Your task to perform on an android device: Toggle the flashlight Image 0: 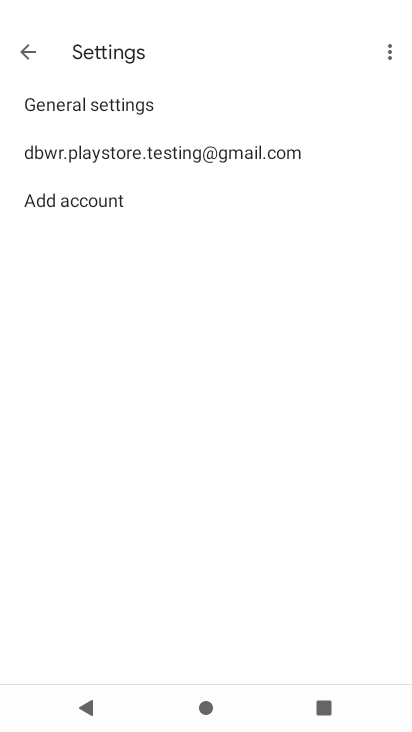
Step 0: press home button
Your task to perform on an android device: Toggle the flashlight Image 1: 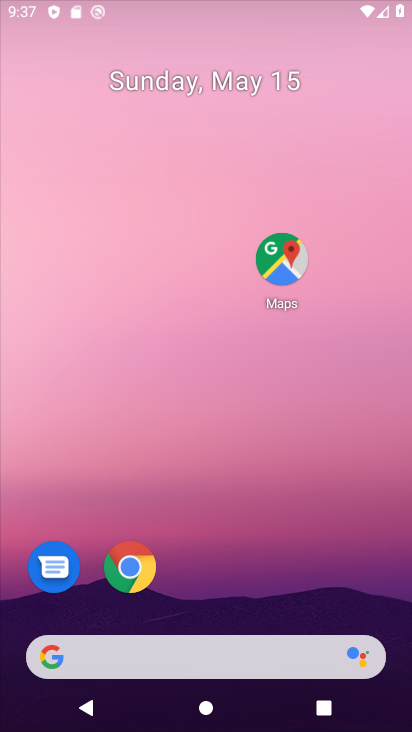
Step 1: drag from (242, 588) to (213, 113)
Your task to perform on an android device: Toggle the flashlight Image 2: 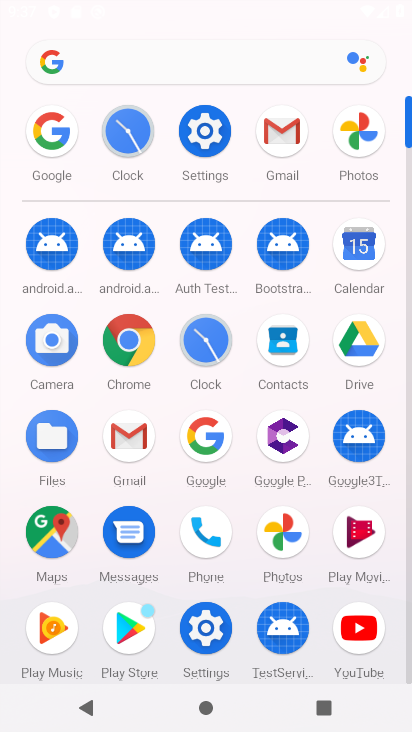
Step 2: click (201, 129)
Your task to perform on an android device: Toggle the flashlight Image 3: 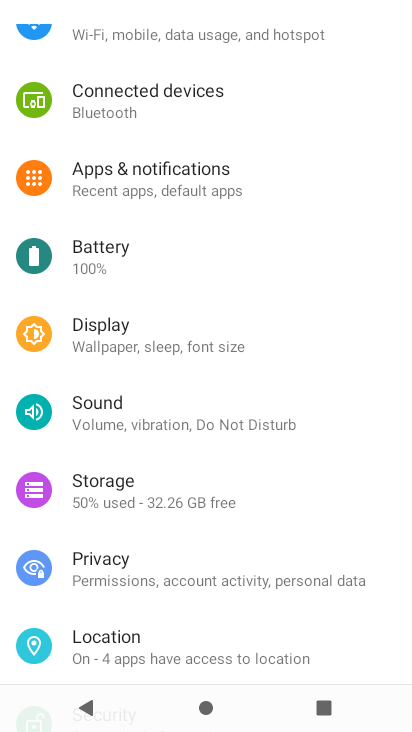
Step 3: drag from (210, 188) to (237, 599)
Your task to perform on an android device: Toggle the flashlight Image 4: 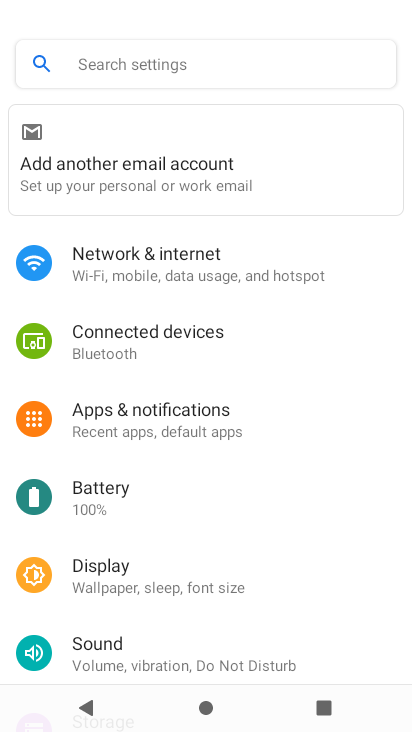
Step 4: click (184, 71)
Your task to perform on an android device: Toggle the flashlight Image 5: 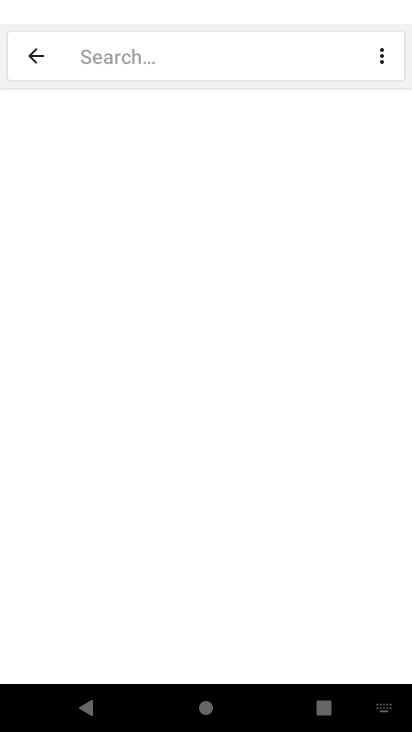
Step 5: type "flash"
Your task to perform on an android device: Toggle the flashlight Image 6: 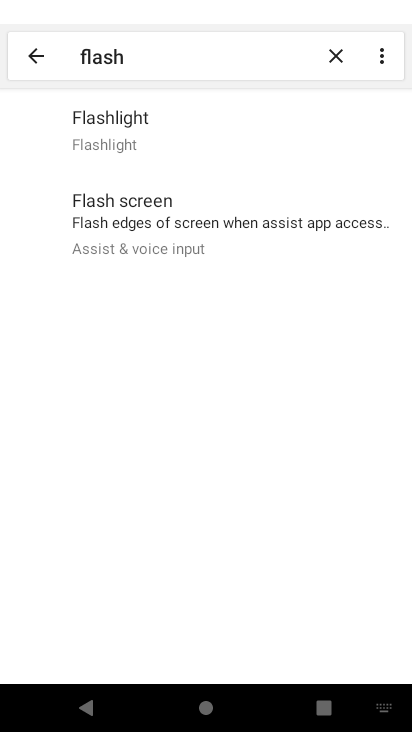
Step 6: task complete